Your task to perform on an android device: change the clock style Image 0: 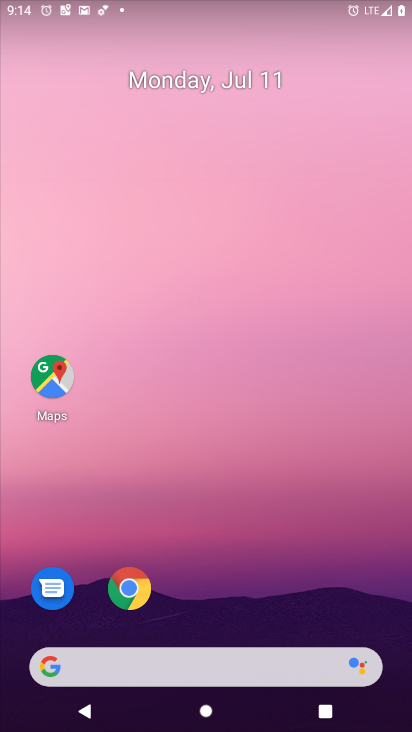
Step 0: drag from (216, 669) to (349, 27)
Your task to perform on an android device: change the clock style Image 1: 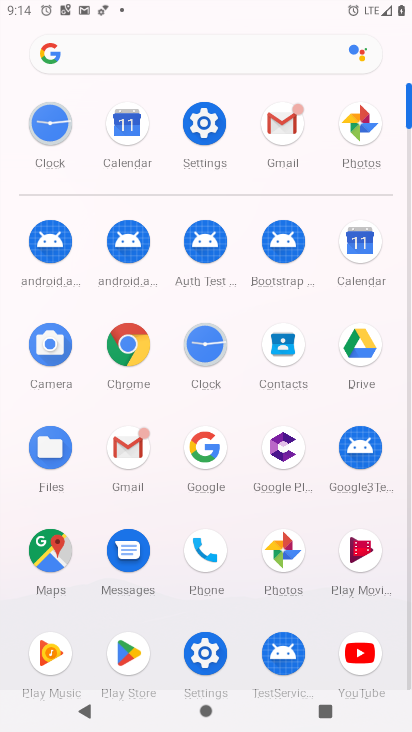
Step 1: click (204, 345)
Your task to perform on an android device: change the clock style Image 2: 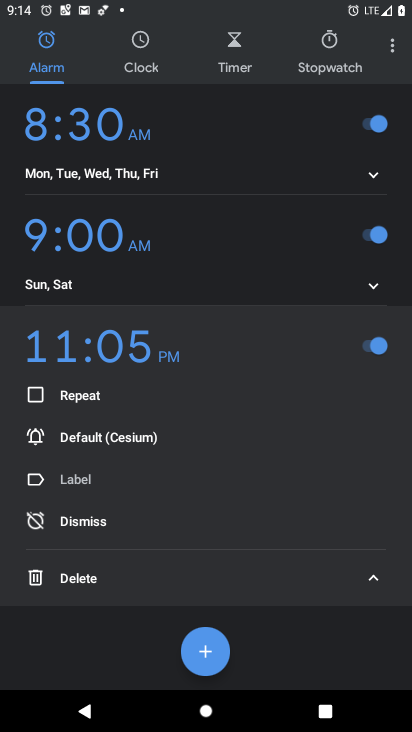
Step 2: click (397, 46)
Your task to perform on an android device: change the clock style Image 3: 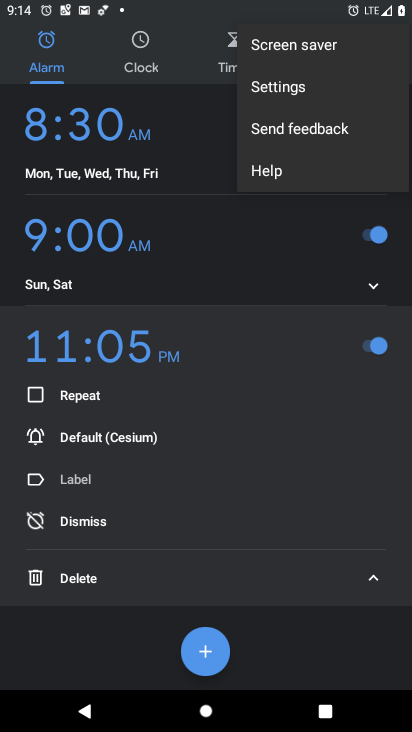
Step 3: click (305, 98)
Your task to perform on an android device: change the clock style Image 4: 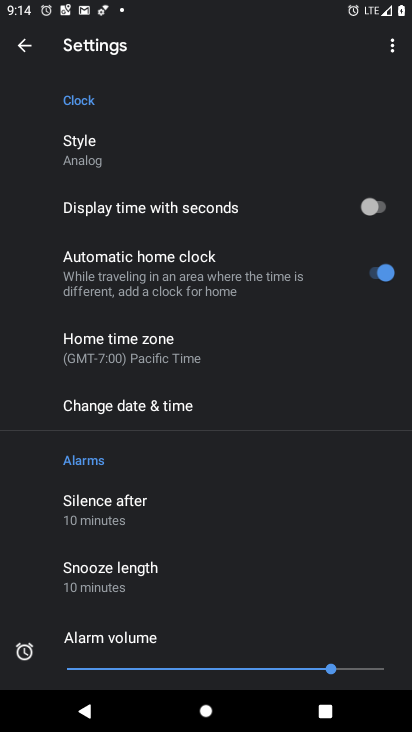
Step 4: click (102, 152)
Your task to perform on an android device: change the clock style Image 5: 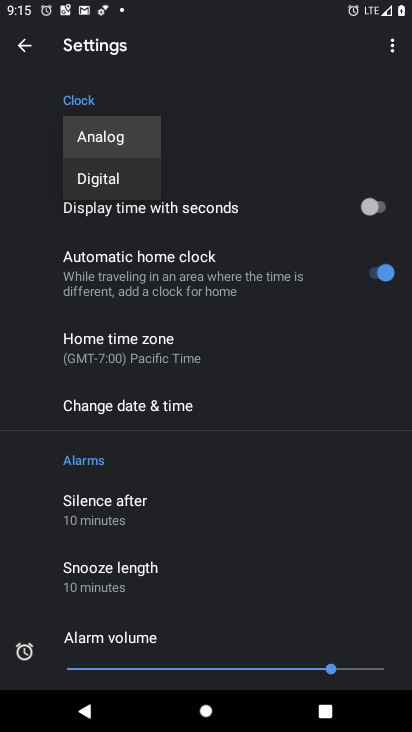
Step 5: click (97, 180)
Your task to perform on an android device: change the clock style Image 6: 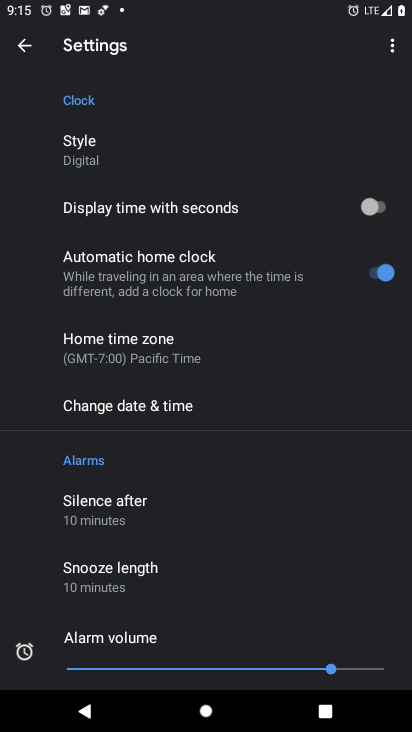
Step 6: task complete